Your task to perform on an android device: Go to internet settings Image 0: 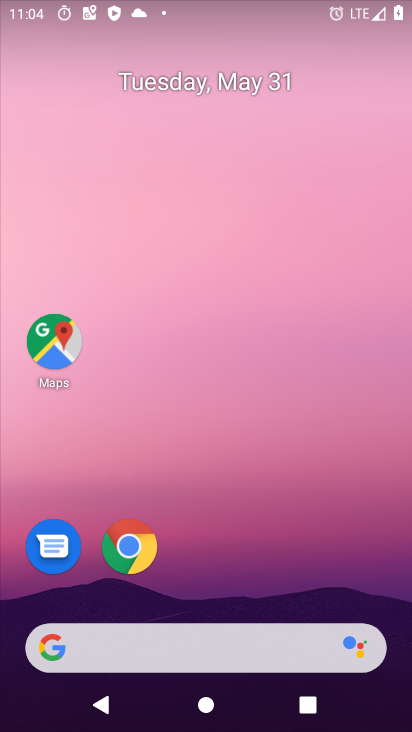
Step 0: drag from (302, 527) to (311, 58)
Your task to perform on an android device: Go to internet settings Image 1: 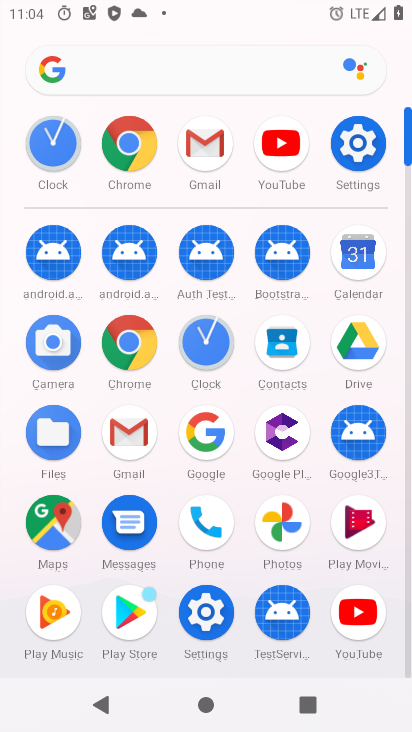
Step 1: click (362, 162)
Your task to perform on an android device: Go to internet settings Image 2: 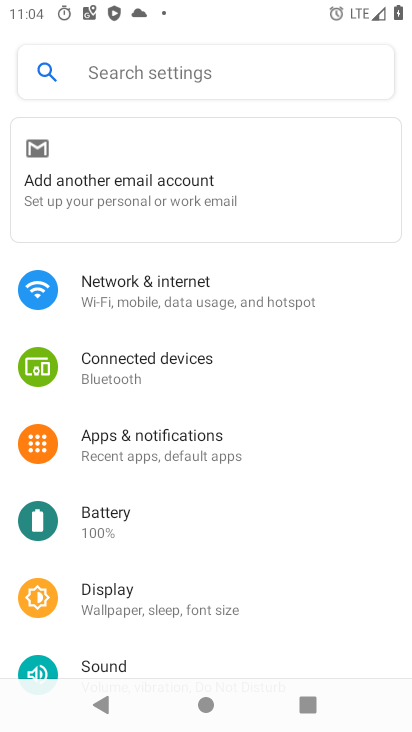
Step 2: click (158, 280)
Your task to perform on an android device: Go to internet settings Image 3: 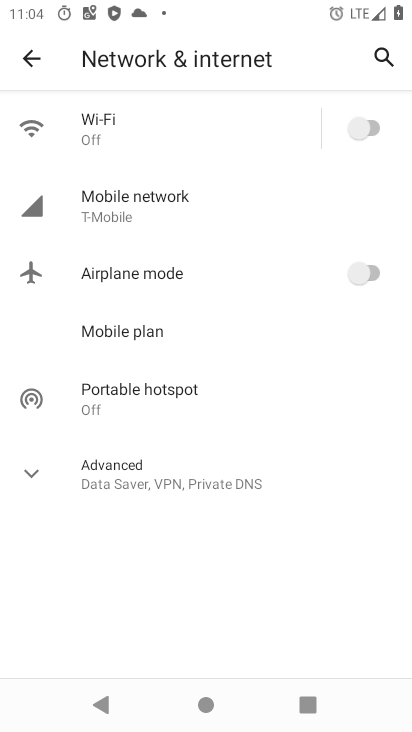
Step 3: task complete